Your task to perform on an android device: allow notifications from all sites in the chrome app Image 0: 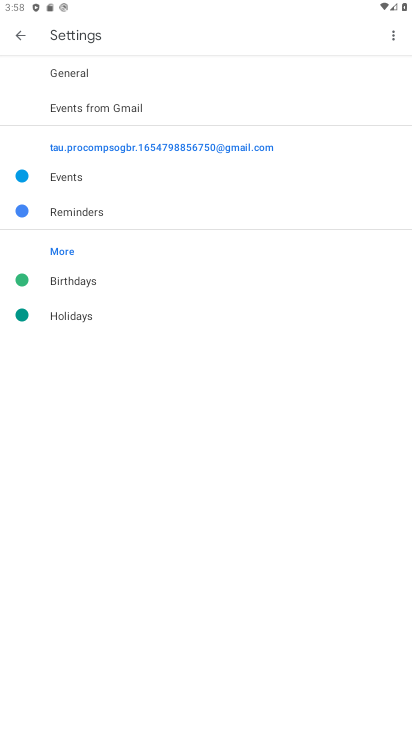
Step 0: press back button
Your task to perform on an android device: allow notifications from all sites in the chrome app Image 1: 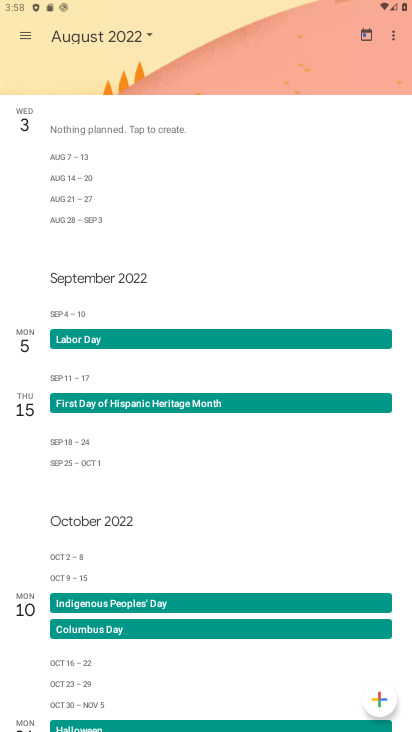
Step 1: press home button
Your task to perform on an android device: allow notifications from all sites in the chrome app Image 2: 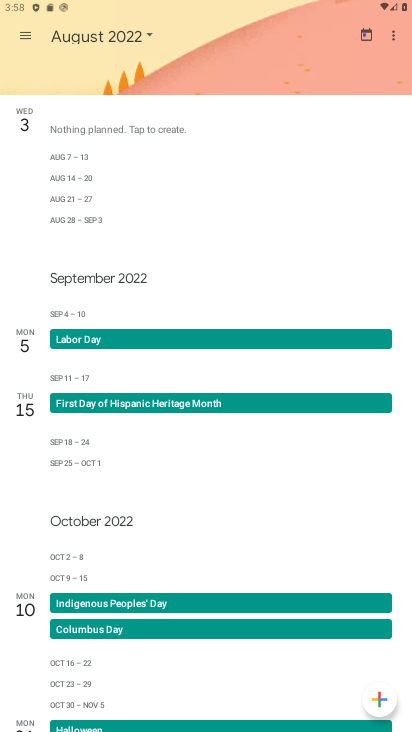
Step 2: press home button
Your task to perform on an android device: allow notifications from all sites in the chrome app Image 3: 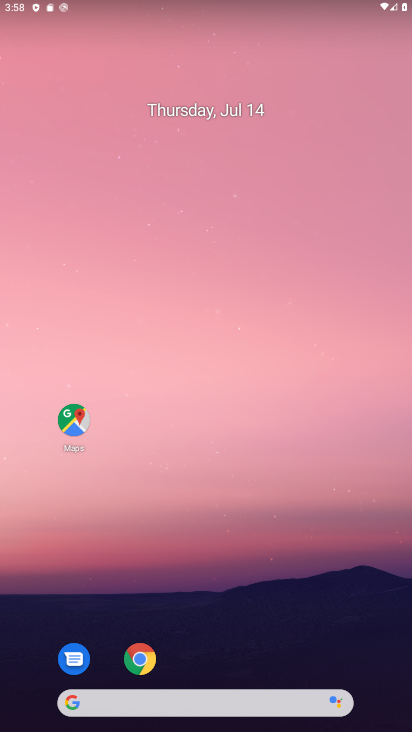
Step 3: drag from (190, 582) to (108, 159)
Your task to perform on an android device: allow notifications from all sites in the chrome app Image 4: 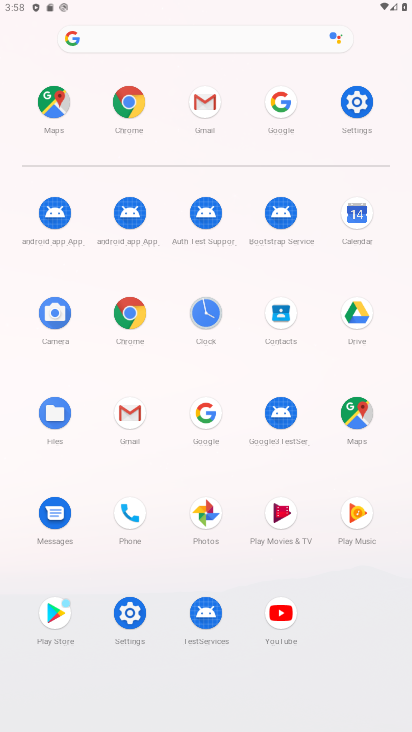
Step 4: drag from (243, 601) to (198, 101)
Your task to perform on an android device: allow notifications from all sites in the chrome app Image 5: 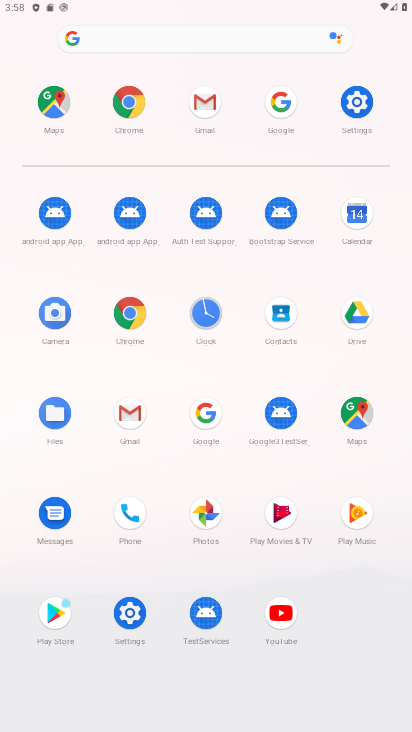
Step 5: click (140, 97)
Your task to perform on an android device: allow notifications from all sites in the chrome app Image 6: 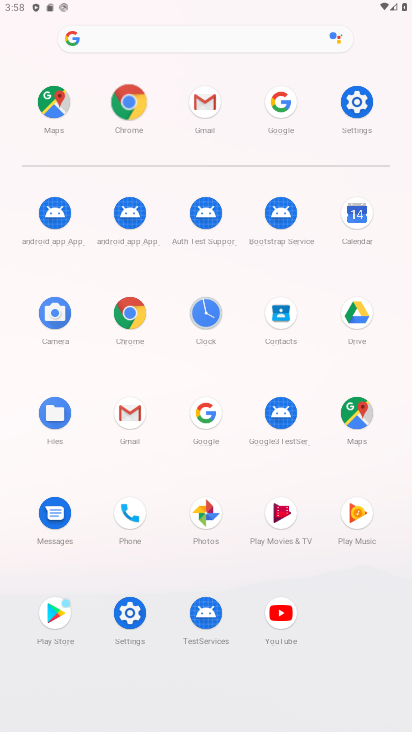
Step 6: click (130, 107)
Your task to perform on an android device: allow notifications from all sites in the chrome app Image 7: 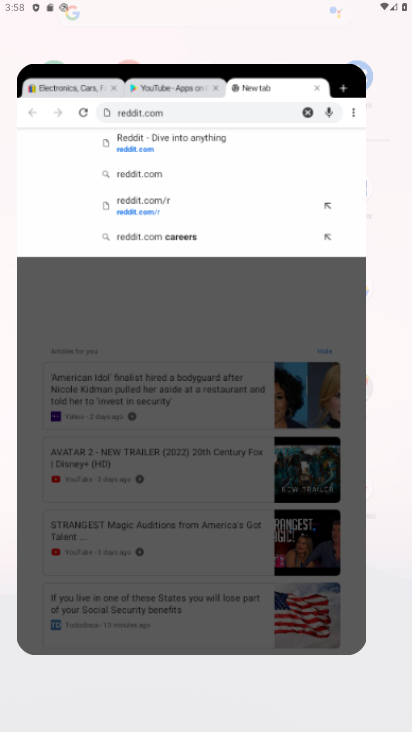
Step 7: click (130, 107)
Your task to perform on an android device: allow notifications from all sites in the chrome app Image 8: 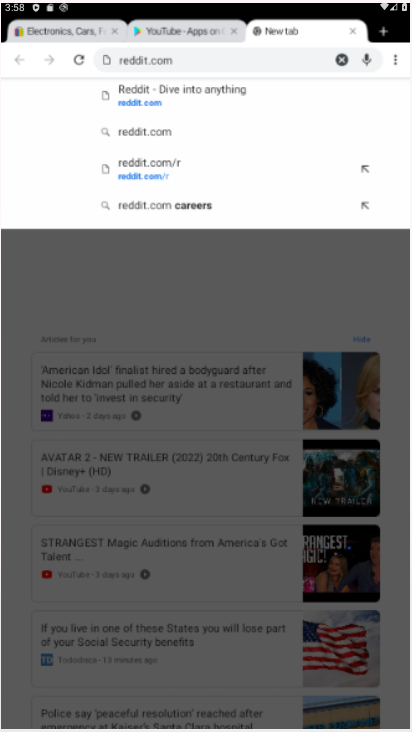
Step 8: click (131, 110)
Your task to perform on an android device: allow notifications from all sites in the chrome app Image 9: 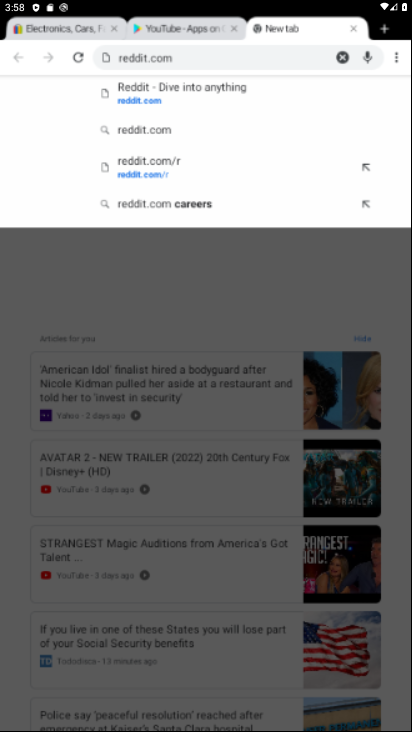
Step 9: click (131, 110)
Your task to perform on an android device: allow notifications from all sites in the chrome app Image 10: 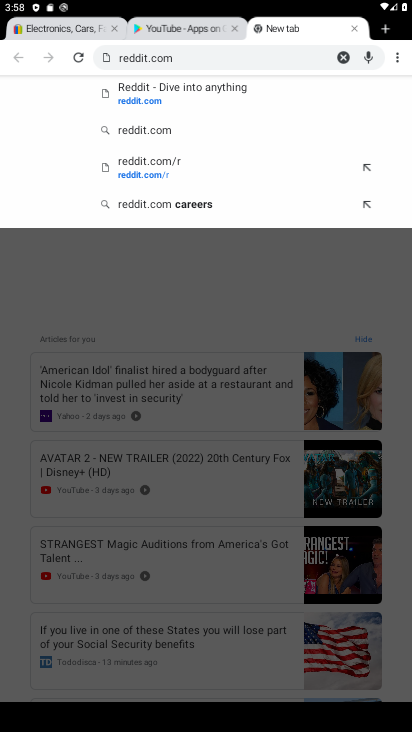
Step 10: drag from (395, 55) to (278, 264)
Your task to perform on an android device: allow notifications from all sites in the chrome app Image 11: 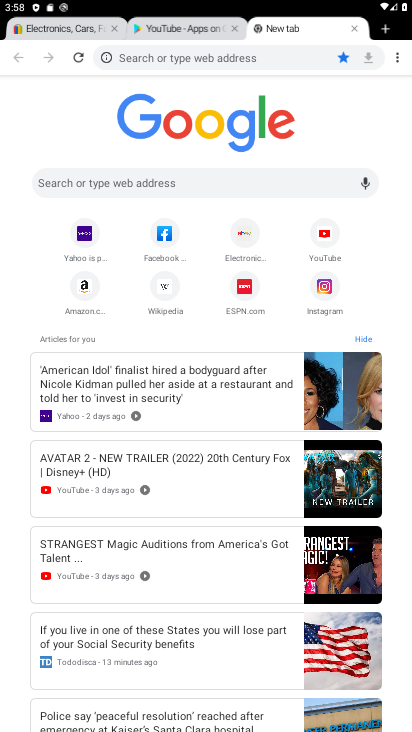
Step 11: click (277, 265)
Your task to perform on an android device: allow notifications from all sites in the chrome app Image 12: 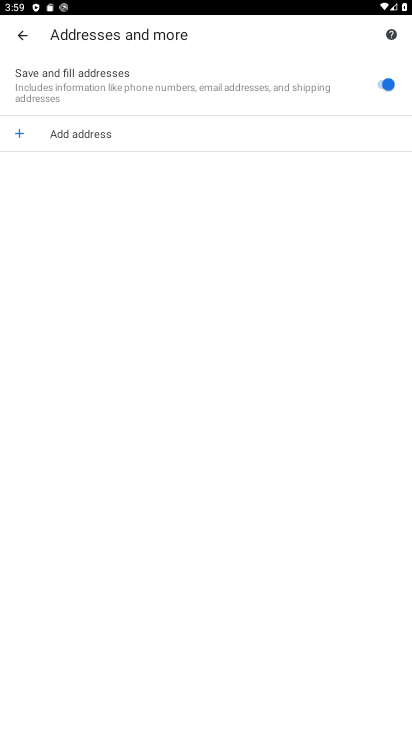
Step 12: click (20, 39)
Your task to perform on an android device: allow notifications from all sites in the chrome app Image 13: 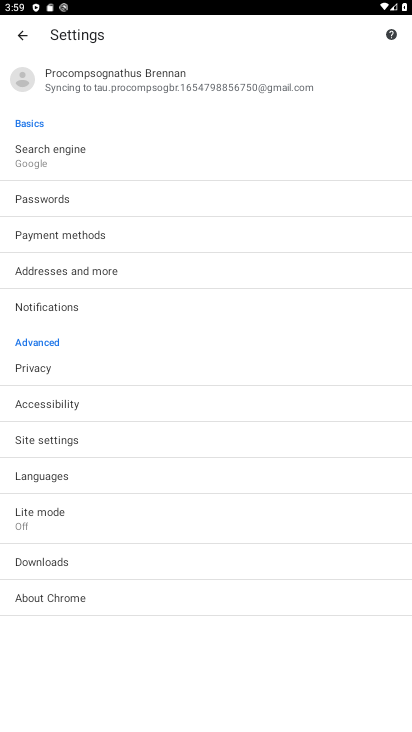
Step 13: click (30, 444)
Your task to perform on an android device: allow notifications from all sites in the chrome app Image 14: 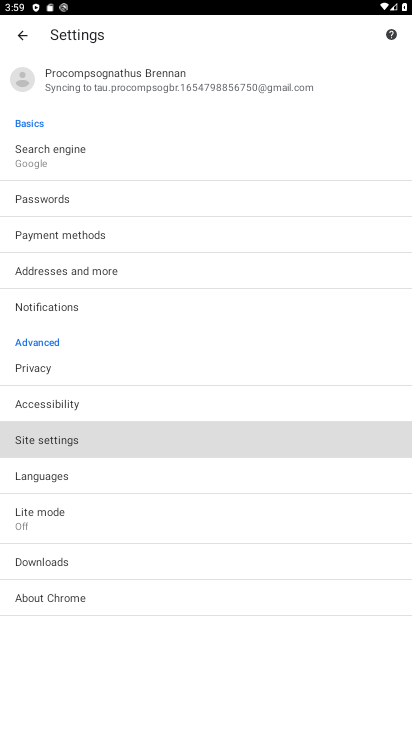
Step 14: click (31, 441)
Your task to perform on an android device: allow notifications from all sites in the chrome app Image 15: 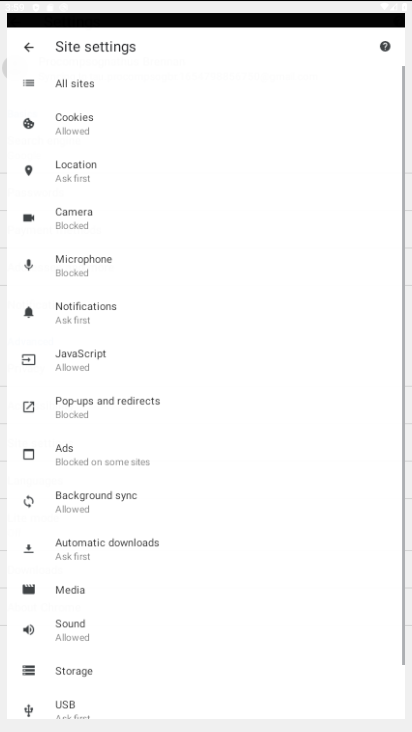
Step 15: click (33, 439)
Your task to perform on an android device: allow notifications from all sites in the chrome app Image 16: 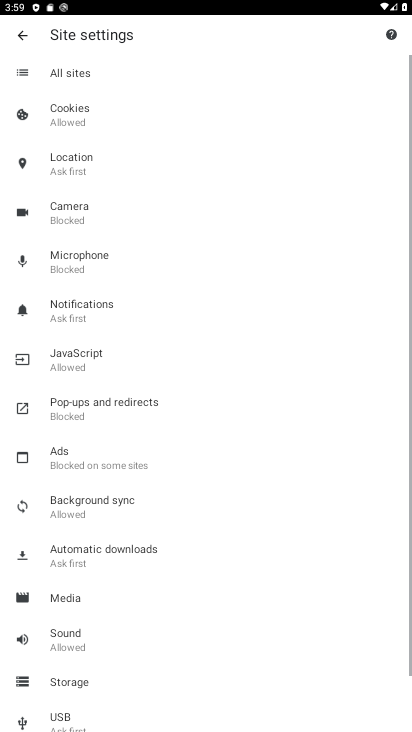
Step 16: click (33, 437)
Your task to perform on an android device: allow notifications from all sites in the chrome app Image 17: 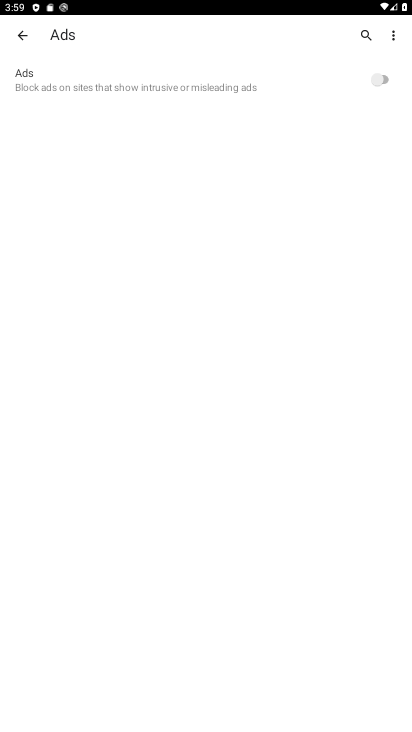
Step 17: click (21, 39)
Your task to perform on an android device: allow notifications from all sites in the chrome app Image 18: 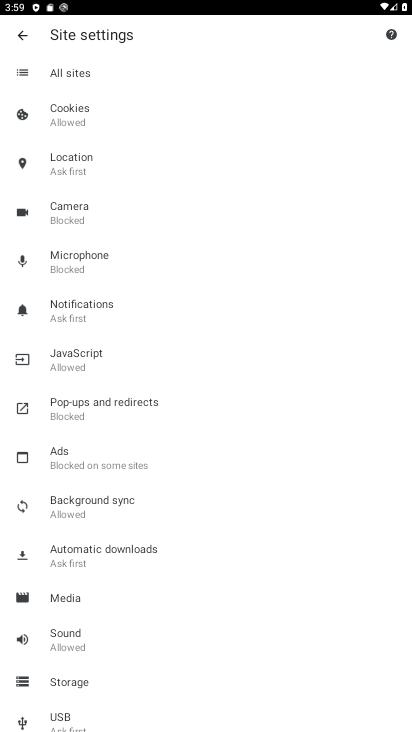
Step 18: click (83, 308)
Your task to perform on an android device: allow notifications from all sites in the chrome app Image 19: 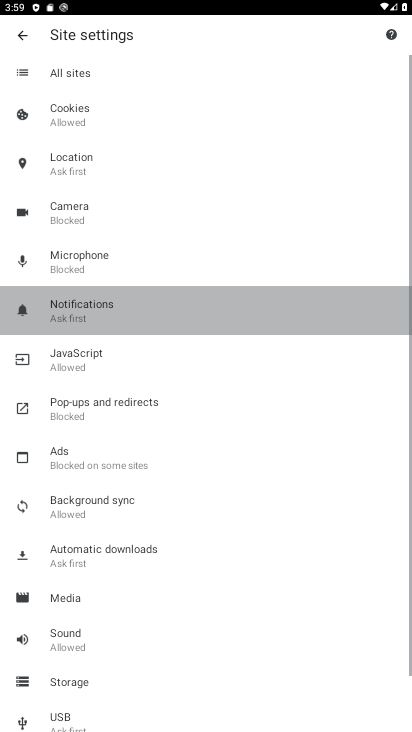
Step 19: click (81, 309)
Your task to perform on an android device: allow notifications from all sites in the chrome app Image 20: 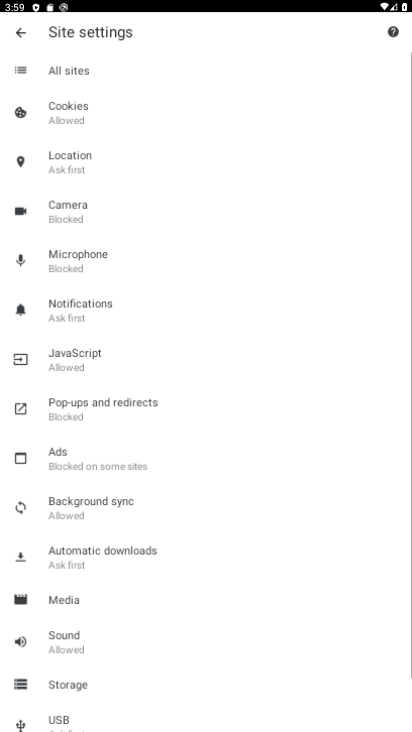
Step 20: click (83, 310)
Your task to perform on an android device: allow notifications from all sites in the chrome app Image 21: 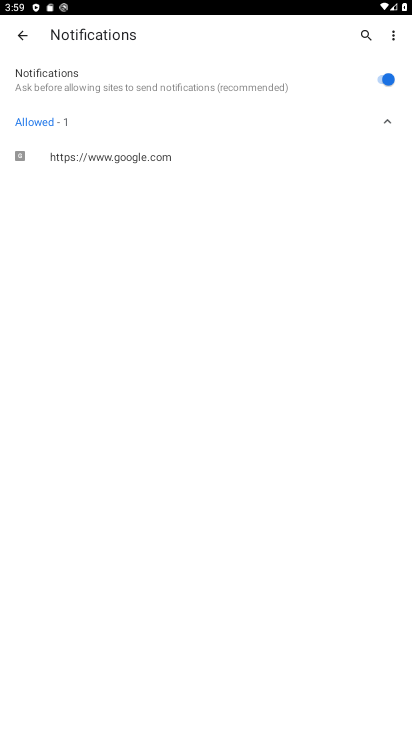
Step 21: task complete